Your task to perform on an android device: Search for pizza restaurants on Maps Image 0: 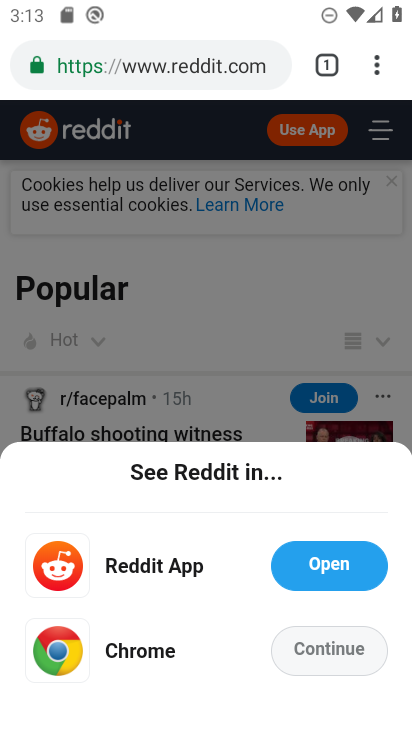
Step 0: press back button
Your task to perform on an android device: Search for pizza restaurants on Maps Image 1: 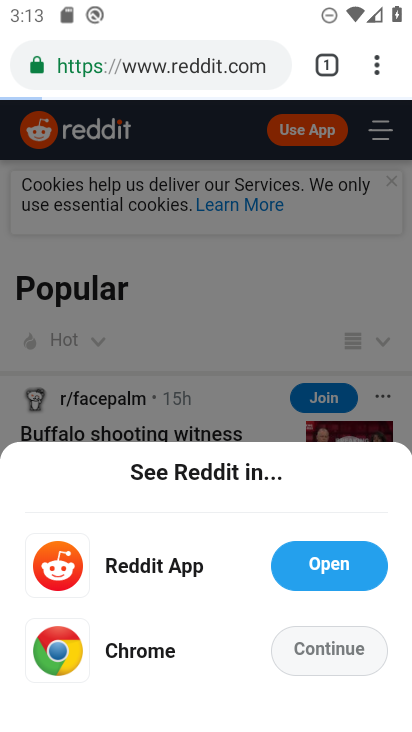
Step 1: press home button
Your task to perform on an android device: Search for pizza restaurants on Maps Image 2: 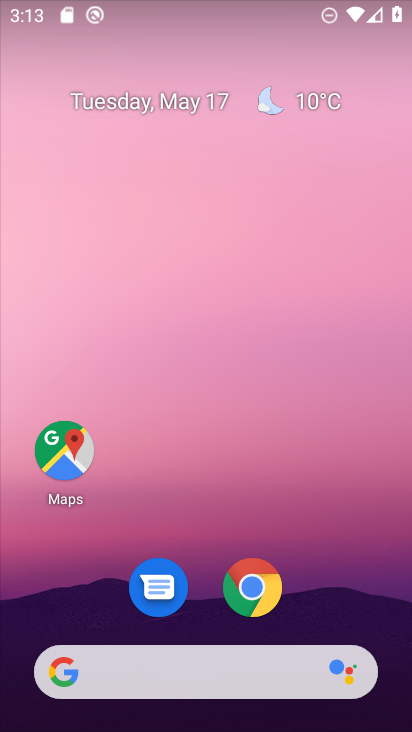
Step 2: click (60, 443)
Your task to perform on an android device: Search for pizza restaurants on Maps Image 3: 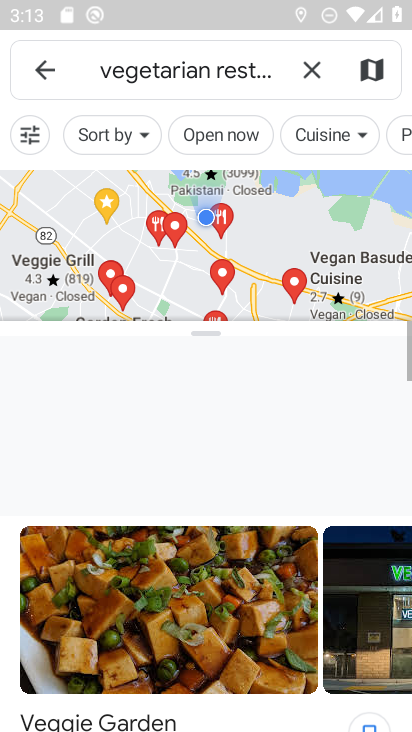
Step 3: click (311, 65)
Your task to perform on an android device: Search for pizza restaurants on Maps Image 4: 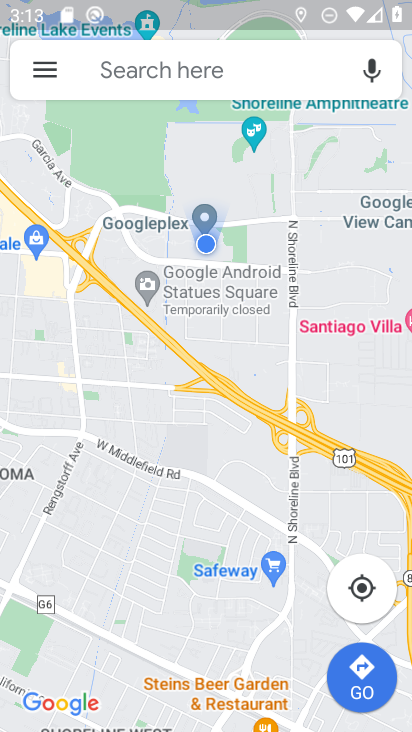
Step 4: click (244, 68)
Your task to perform on an android device: Search for pizza restaurants on Maps Image 5: 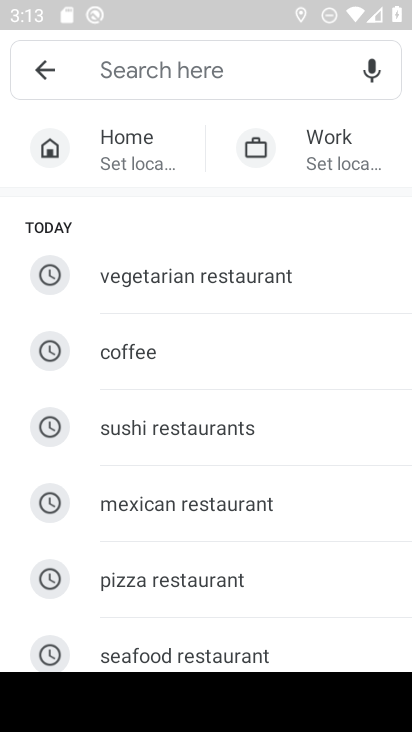
Step 5: click (247, 582)
Your task to perform on an android device: Search for pizza restaurants on Maps Image 6: 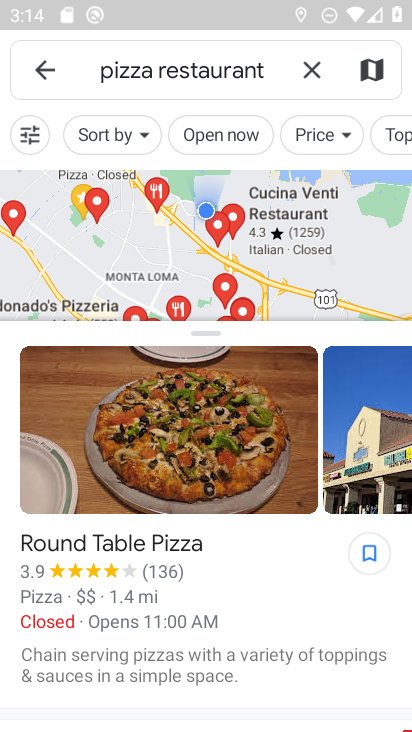
Step 6: task complete